Your task to perform on an android device: change the clock style Image 0: 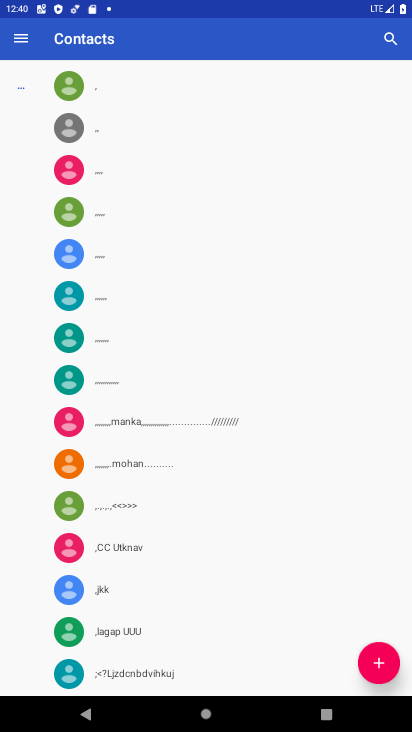
Step 0: press home button
Your task to perform on an android device: change the clock style Image 1: 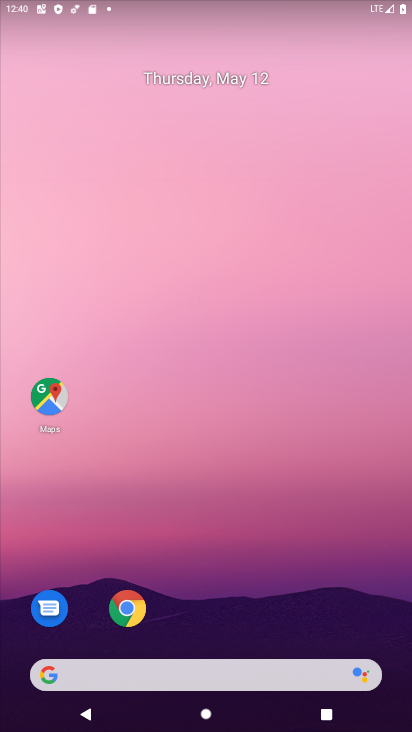
Step 1: drag from (212, 654) to (286, 29)
Your task to perform on an android device: change the clock style Image 2: 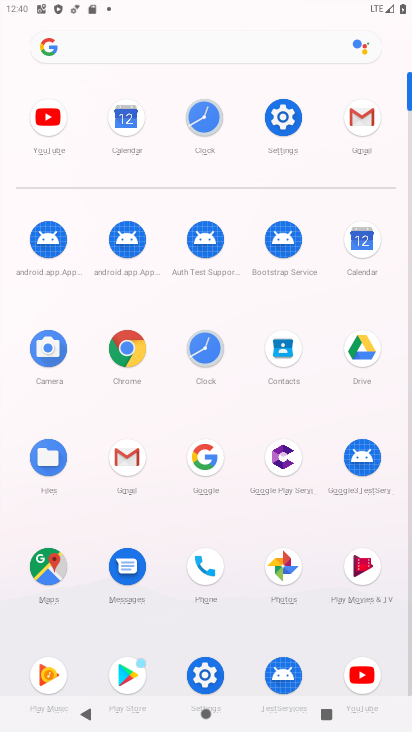
Step 2: click (204, 127)
Your task to perform on an android device: change the clock style Image 3: 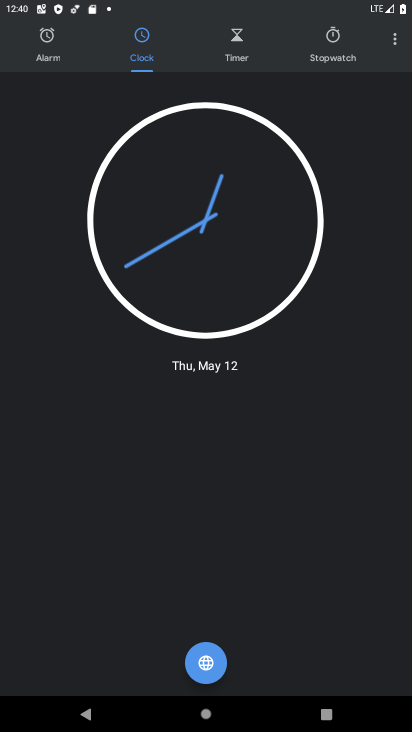
Step 3: click (400, 38)
Your task to perform on an android device: change the clock style Image 4: 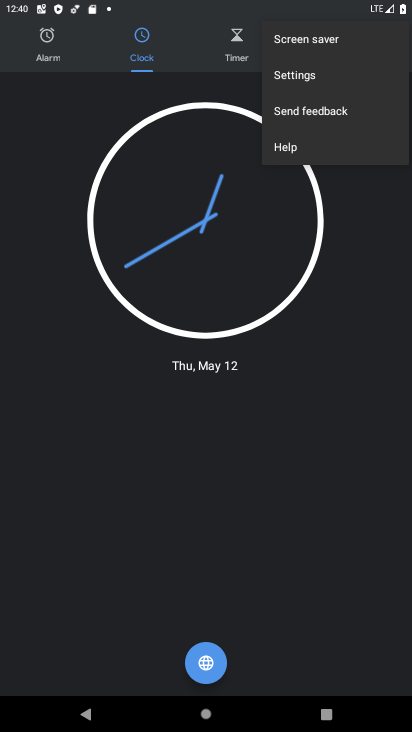
Step 4: click (337, 82)
Your task to perform on an android device: change the clock style Image 5: 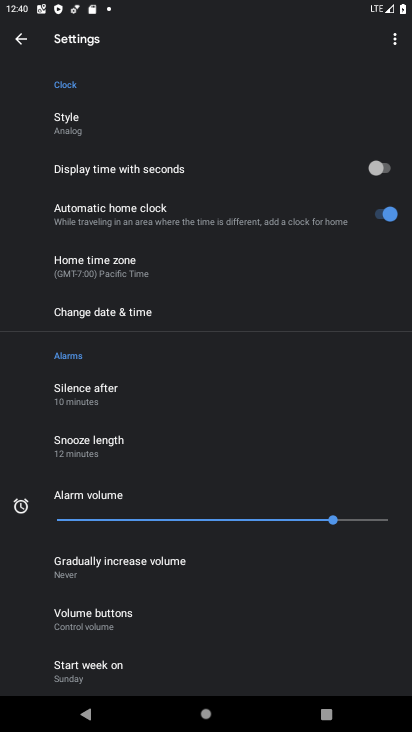
Step 5: click (58, 131)
Your task to perform on an android device: change the clock style Image 6: 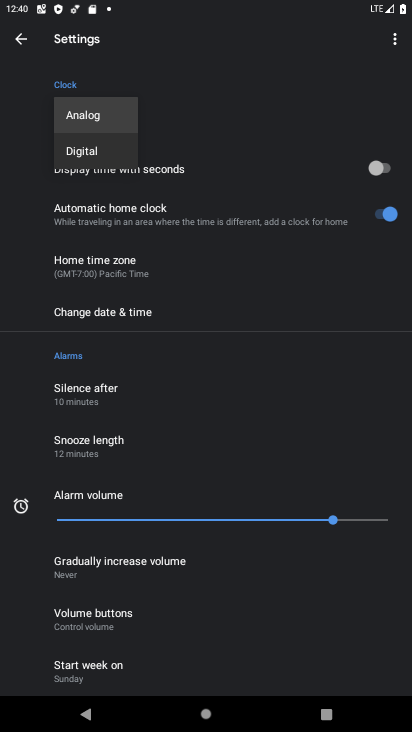
Step 6: click (72, 155)
Your task to perform on an android device: change the clock style Image 7: 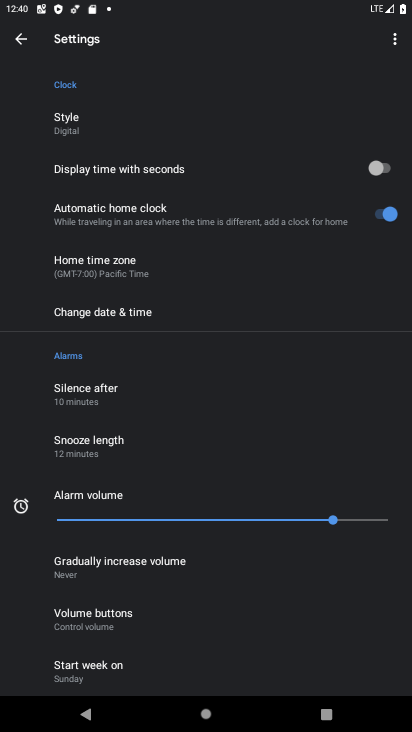
Step 7: task complete